Your task to perform on an android device: Open Yahoo.com Image 0: 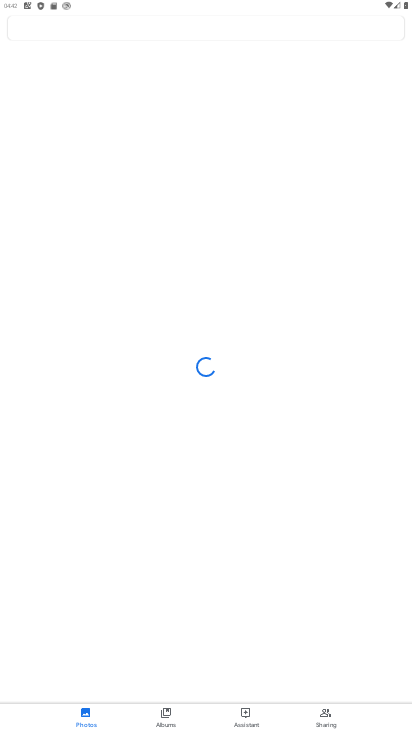
Step 0: press home button
Your task to perform on an android device: Open Yahoo.com Image 1: 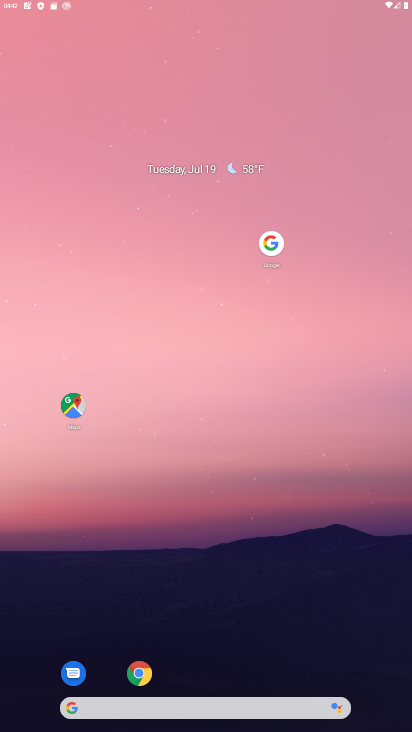
Step 1: press home button
Your task to perform on an android device: Open Yahoo.com Image 2: 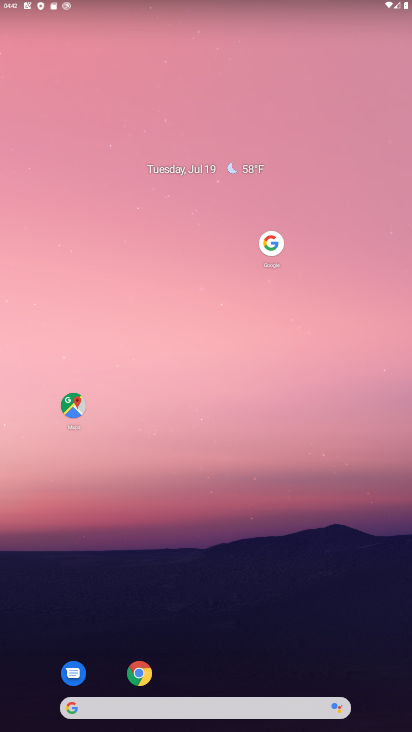
Step 2: click (71, 707)
Your task to perform on an android device: Open Yahoo.com Image 3: 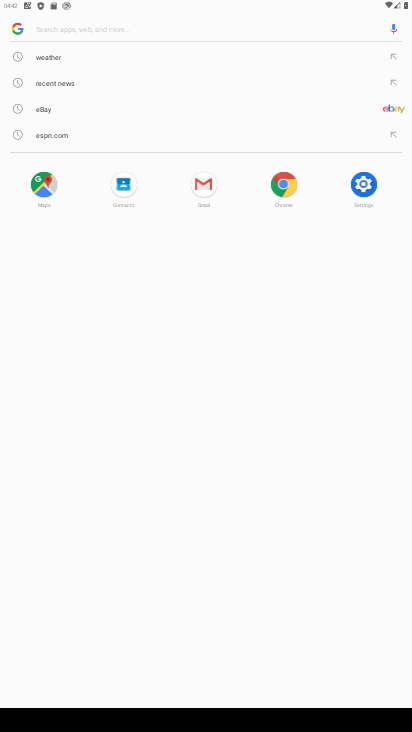
Step 3: type "Yahoo.com"
Your task to perform on an android device: Open Yahoo.com Image 4: 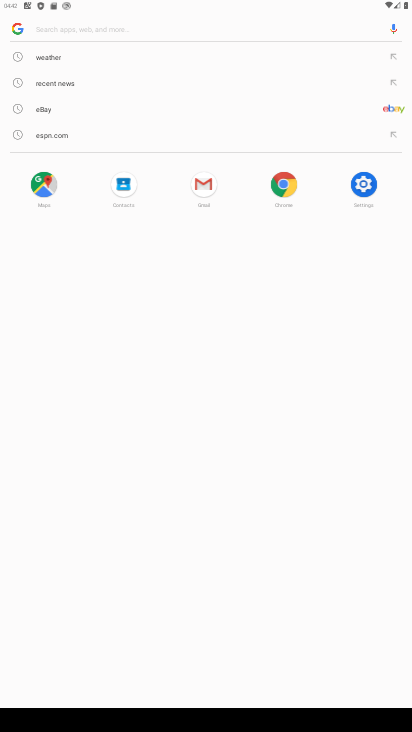
Step 4: click (73, 32)
Your task to perform on an android device: Open Yahoo.com Image 5: 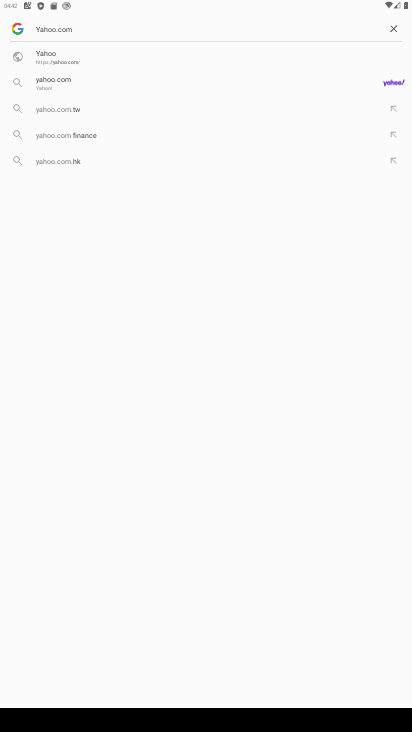
Step 5: press enter
Your task to perform on an android device: Open Yahoo.com Image 6: 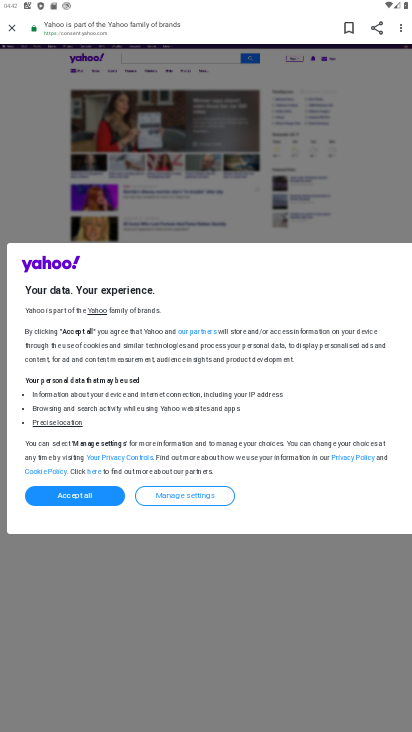
Step 6: click (68, 492)
Your task to perform on an android device: Open Yahoo.com Image 7: 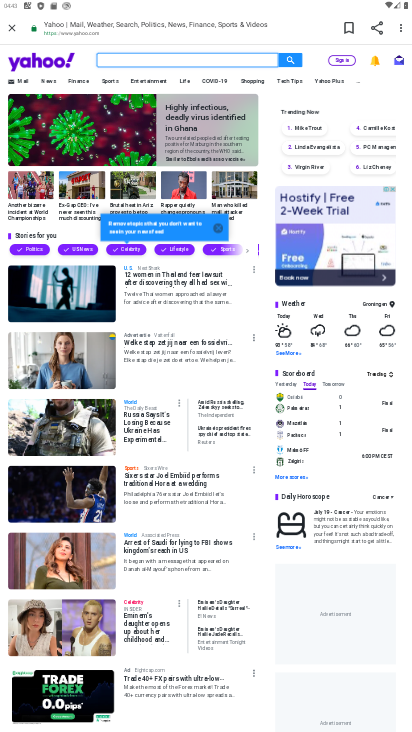
Step 7: task complete